Your task to perform on an android device: Show me productivity apps on the Play Store Image 0: 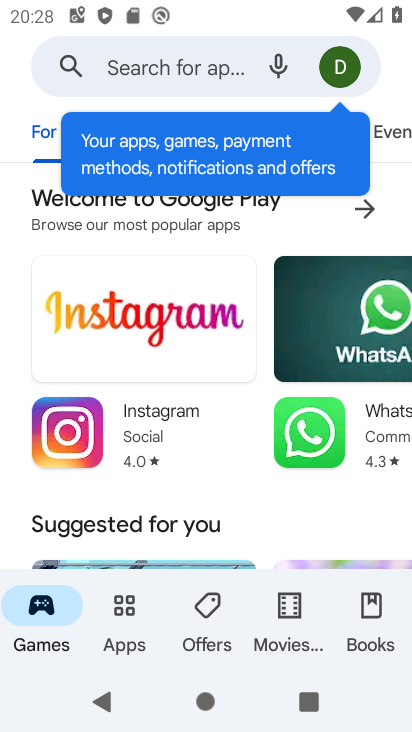
Step 0: click (121, 615)
Your task to perform on an android device: Show me productivity apps on the Play Store Image 1: 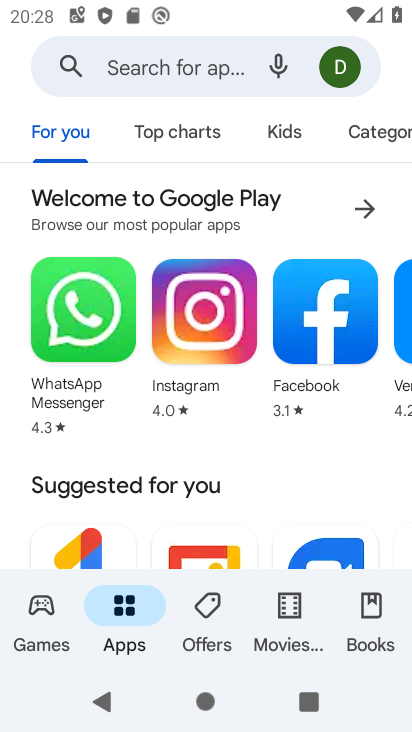
Step 1: click (376, 113)
Your task to perform on an android device: Show me productivity apps on the Play Store Image 2: 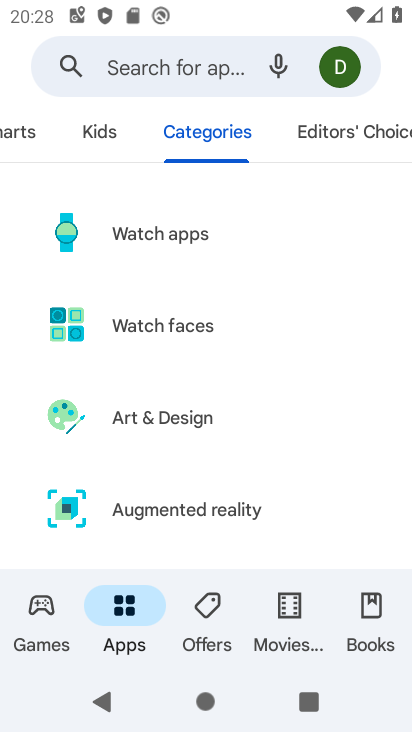
Step 2: drag from (269, 461) to (304, 91)
Your task to perform on an android device: Show me productivity apps on the Play Store Image 3: 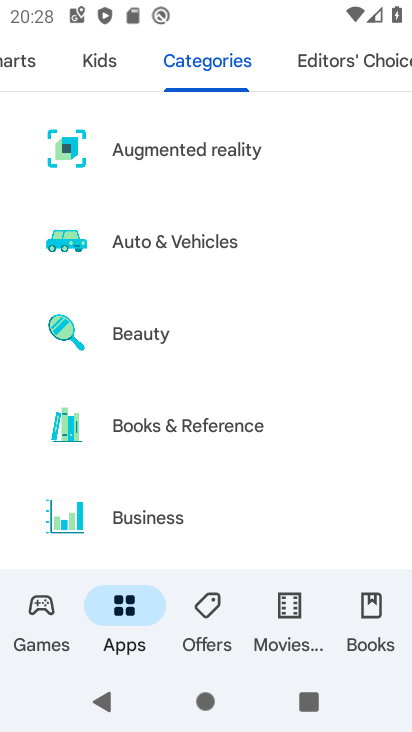
Step 3: drag from (268, 453) to (293, 50)
Your task to perform on an android device: Show me productivity apps on the Play Store Image 4: 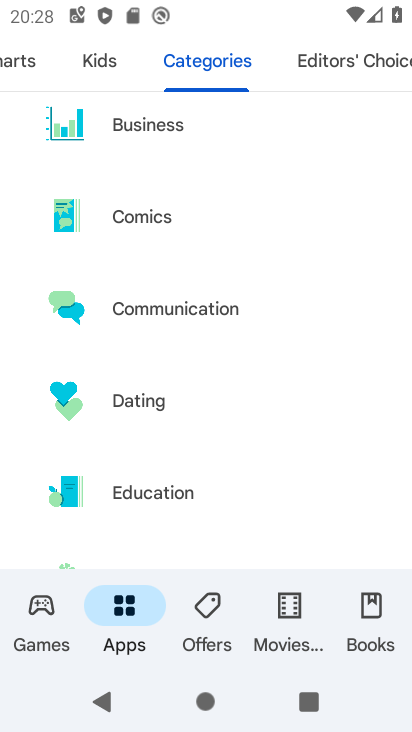
Step 4: drag from (229, 437) to (260, 42)
Your task to perform on an android device: Show me productivity apps on the Play Store Image 5: 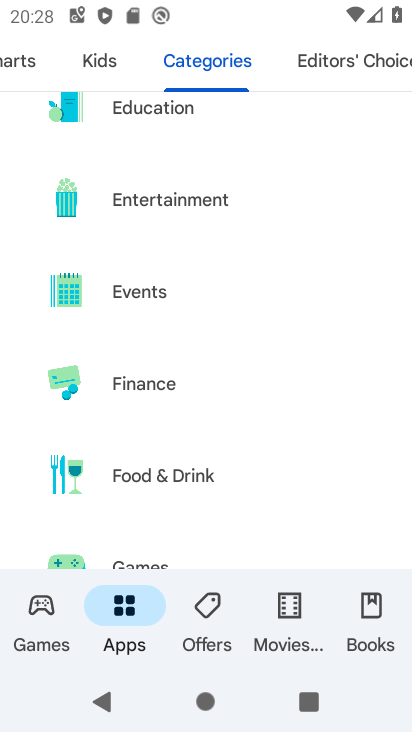
Step 5: drag from (255, 368) to (276, 8)
Your task to perform on an android device: Show me productivity apps on the Play Store Image 6: 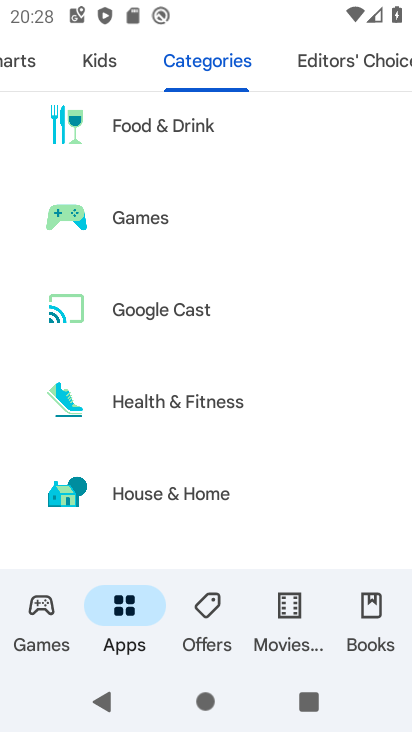
Step 6: drag from (261, 488) to (274, 95)
Your task to perform on an android device: Show me productivity apps on the Play Store Image 7: 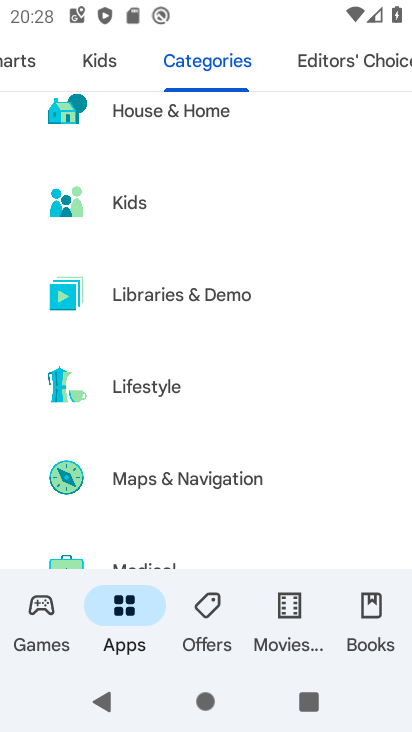
Step 7: drag from (268, 498) to (272, 89)
Your task to perform on an android device: Show me productivity apps on the Play Store Image 8: 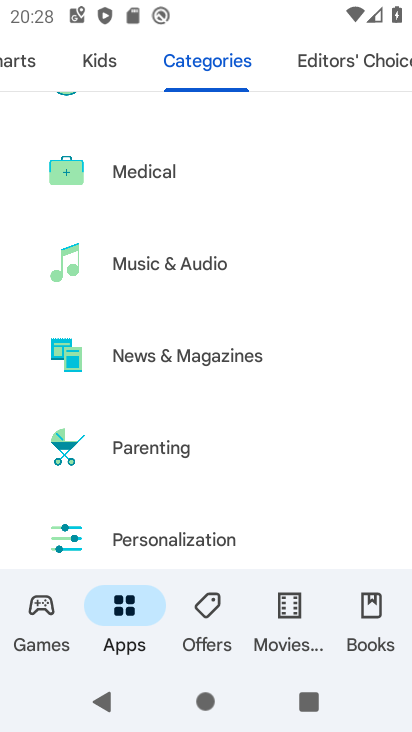
Step 8: drag from (261, 429) to (267, 95)
Your task to perform on an android device: Show me productivity apps on the Play Store Image 9: 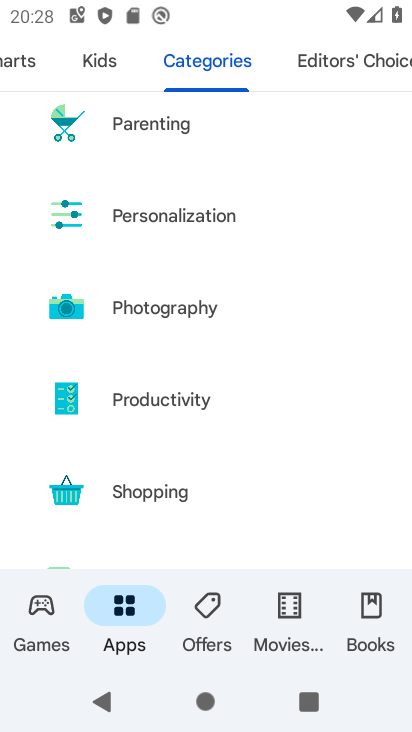
Step 9: click (193, 393)
Your task to perform on an android device: Show me productivity apps on the Play Store Image 10: 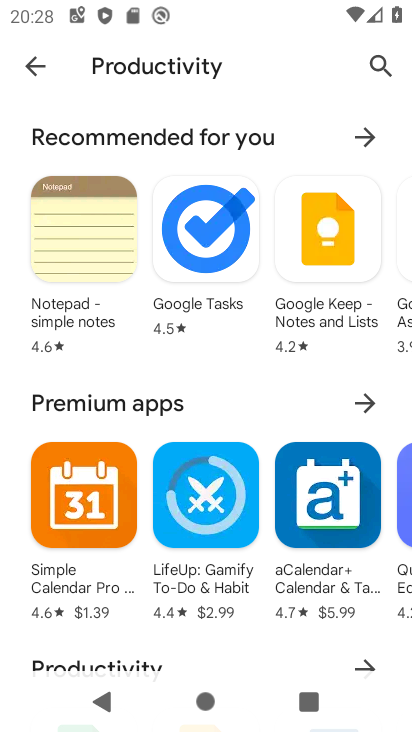
Step 10: task complete